Your task to perform on an android device: clear all cookies in the chrome app Image 0: 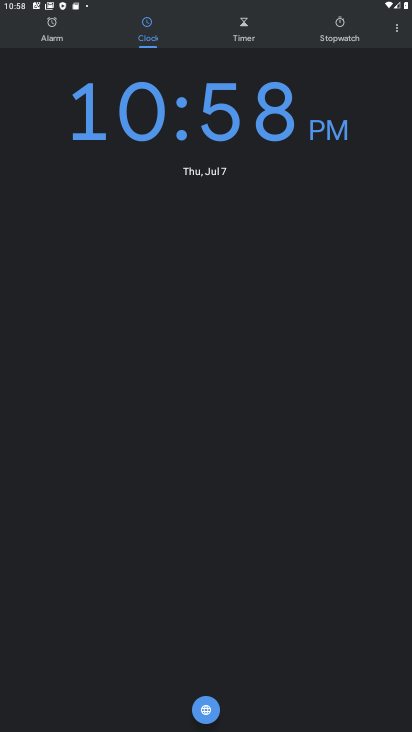
Step 0: press home button
Your task to perform on an android device: clear all cookies in the chrome app Image 1: 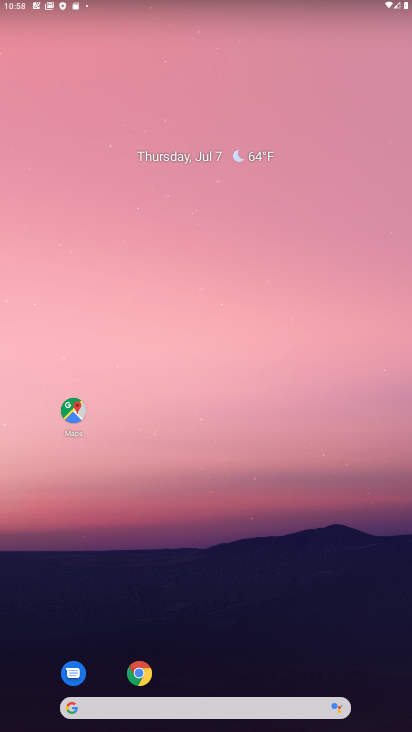
Step 1: click (137, 671)
Your task to perform on an android device: clear all cookies in the chrome app Image 2: 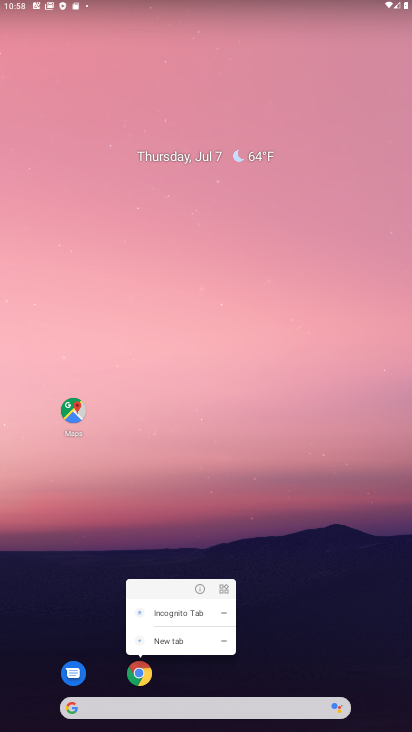
Step 2: click (133, 680)
Your task to perform on an android device: clear all cookies in the chrome app Image 3: 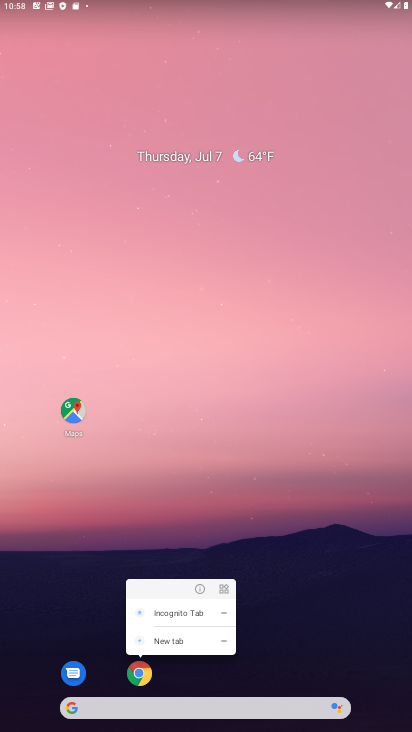
Step 3: click (147, 675)
Your task to perform on an android device: clear all cookies in the chrome app Image 4: 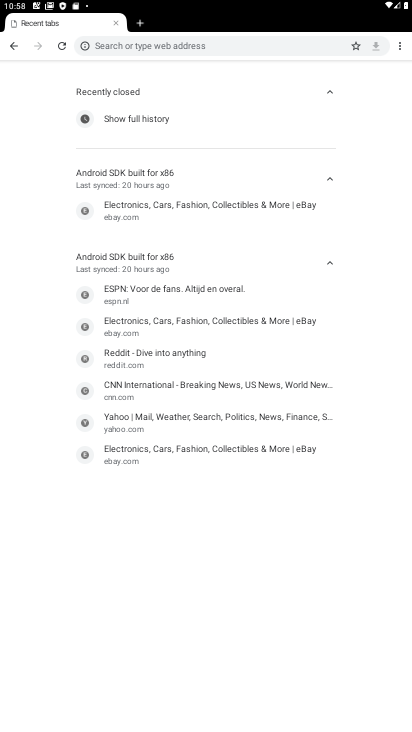
Step 4: click (394, 45)
Your task to perform on an android device: clear all cookies in the chrome app Image 5: 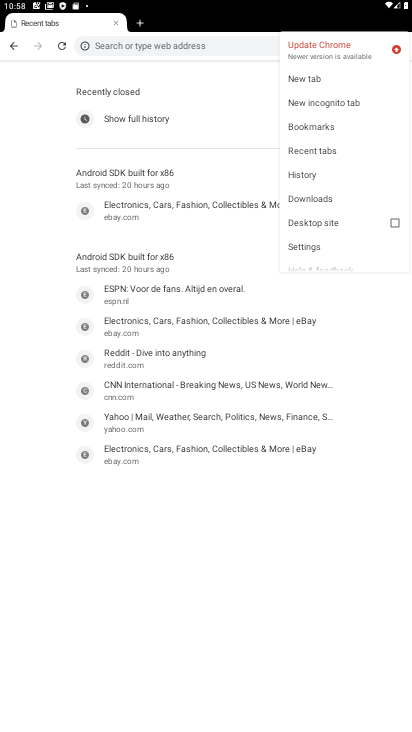
Step 5: click (304, 180)
Your task to perform on an android device: clear all cookies in the chrome app Image 6: 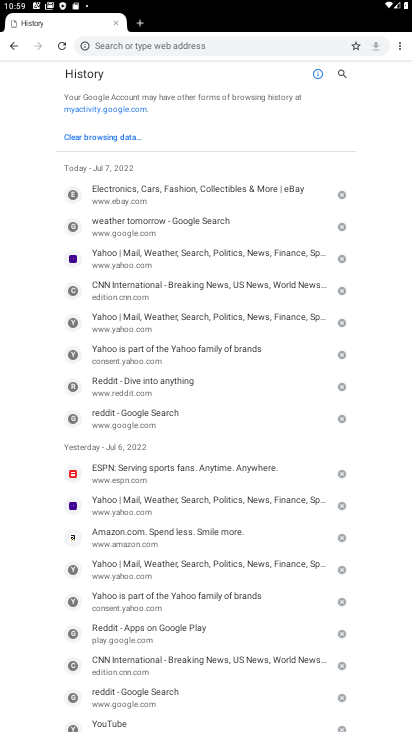
Step 6: click (117, 135)
Your task to perform on an android device: clear all cookies in the chrome app Image 7: 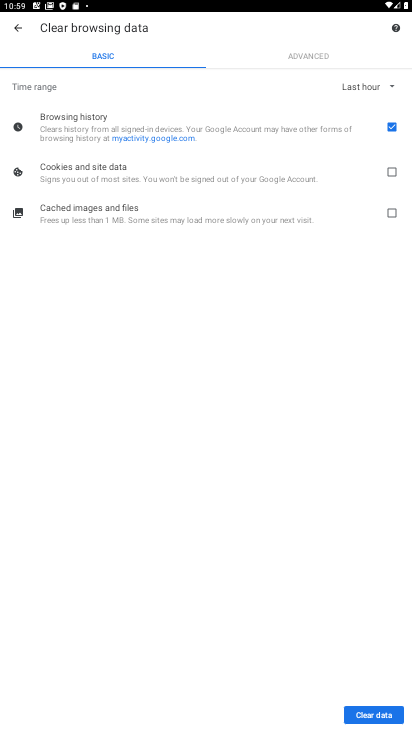
Step 7: click (384, 710)
Your task to perform on an android device: clear all cookies in the chrome app Image 8: 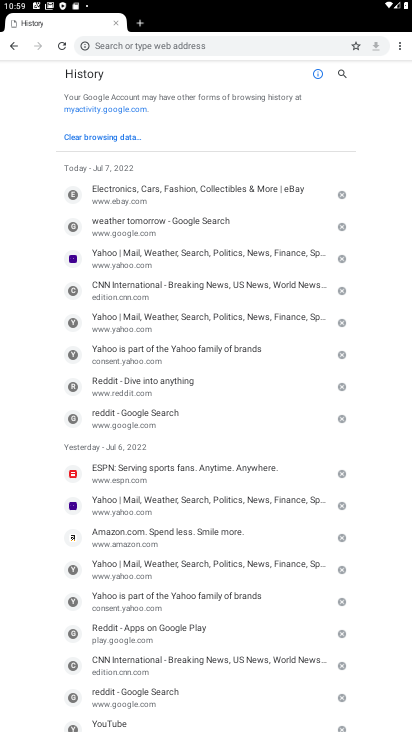
Step 8: task complete